Your task to perform on an android device: toggle pop-ups in chrome Image 0: 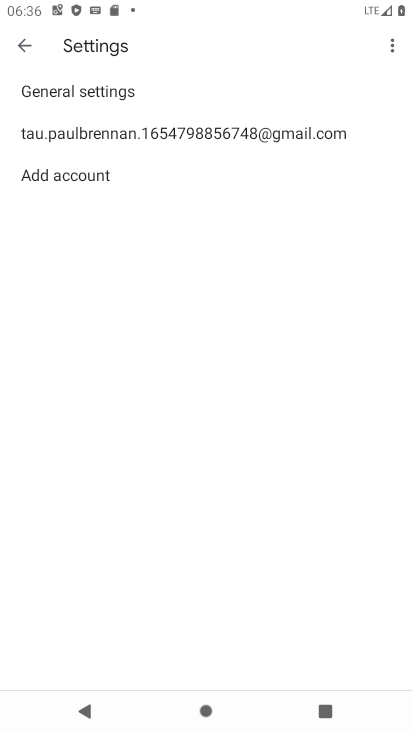
Step 0: press home button
Your task to perform on an android device: toggle pop-ups in chrome Image 1: 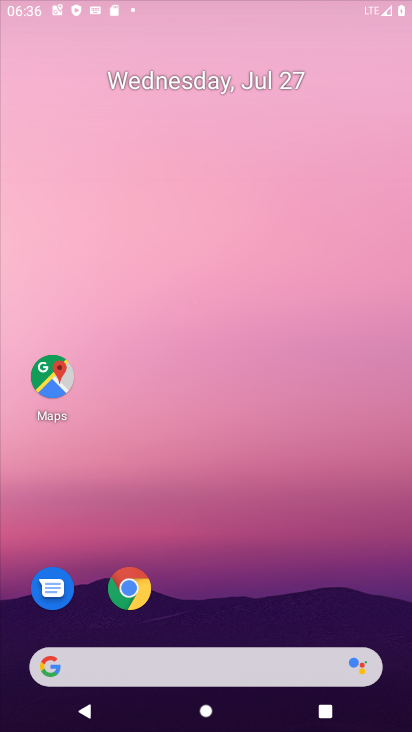
Step 1: drag from (218, 685) to (256, 80)
Your task to perform on an android device: toggle pop-ups in chrome Image 2: 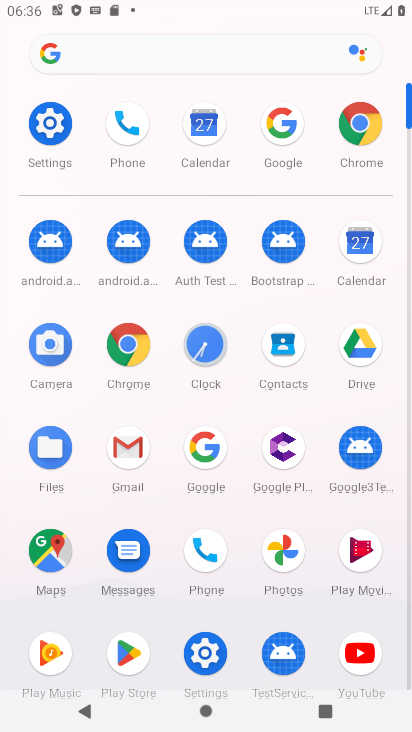
Step 2: click (120, 341)
Your task to perform on an android device: toggle pop-ups in chrome Image 3: 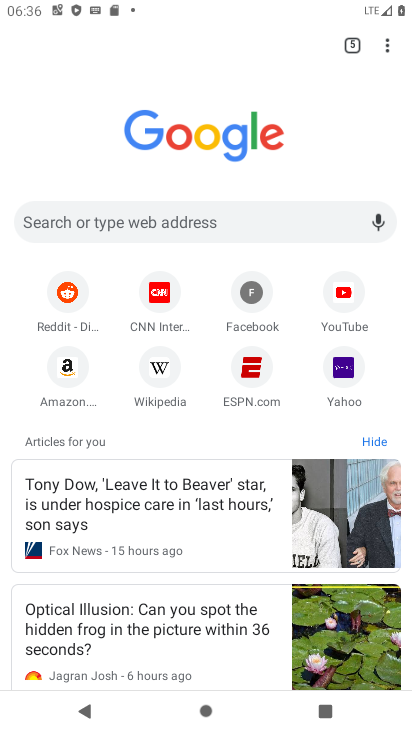
Step 3: click (391, 34)
Your task to perform on an android device: toggle pop-ups in chrome Image 4: 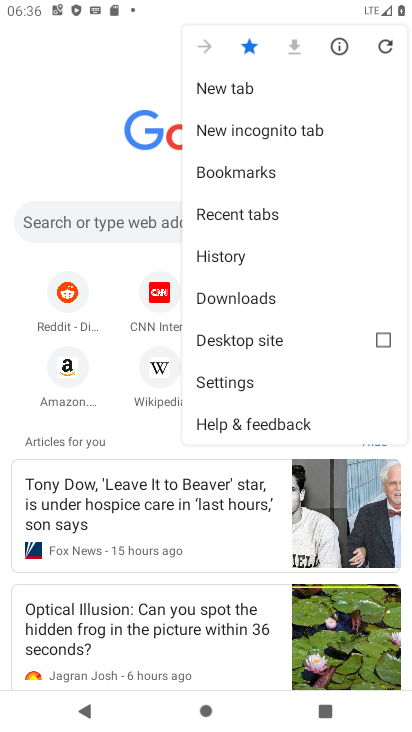
Step 4: click (266, 386)
Your task to perform on an android device: toggle pop-ups in chrome Image 5: 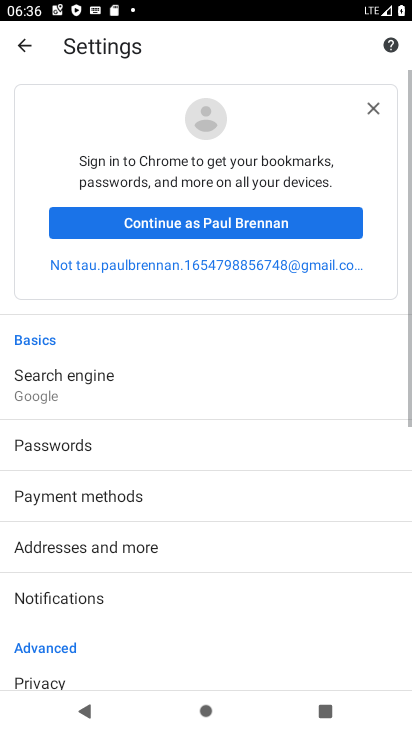
Step 5: drag from (212, 584) to (265, 212)
Your task to perform on an android device: toggle pop-ups in chrome Image 6: 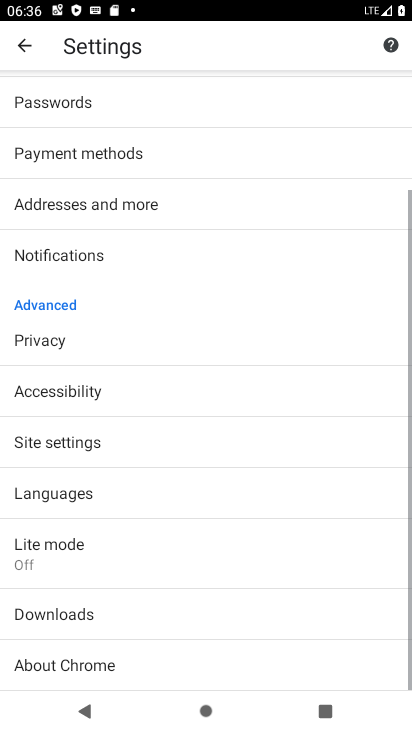
Step 6: click (139, 448)
Your task to perform on an android device: toggle pop-ups in chrome Image 7: 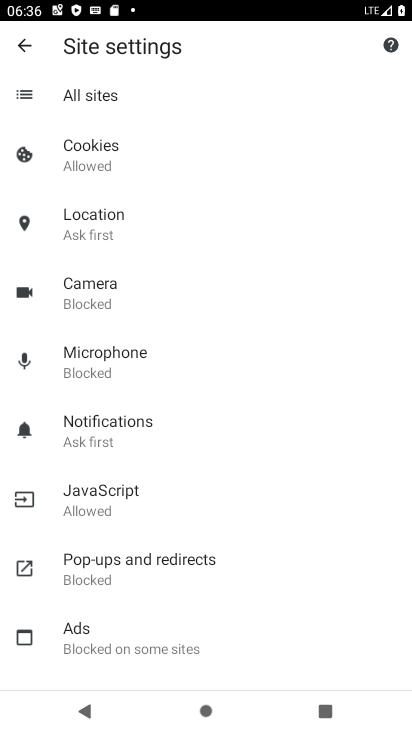
Step 7: click (109, 573)
Your task to perform on an android device: toggle pop-ups in chrome Image 8: 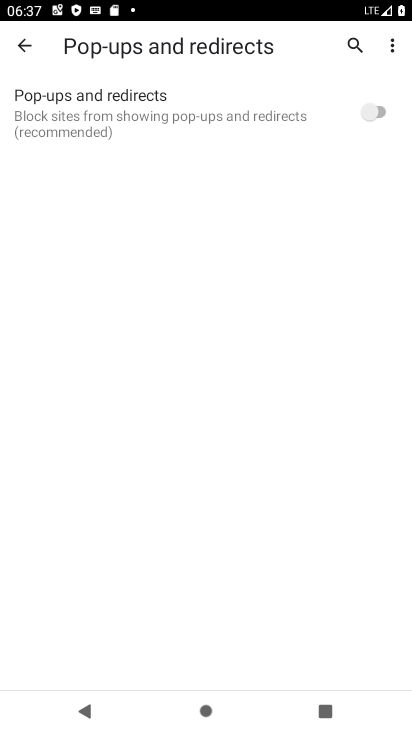
Step 8: click (375, 111)
Your task to perform on an android device: toggle pop-ups in chrome Image 9: 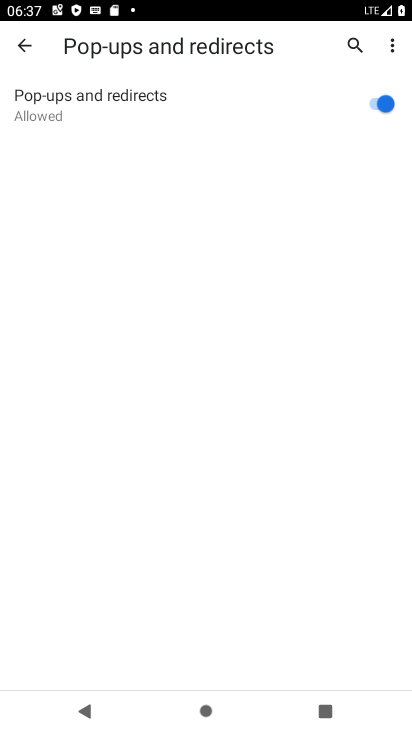
Step 9: task complete